Your task to perform on an android device: Go to Reddit.com Image 0: 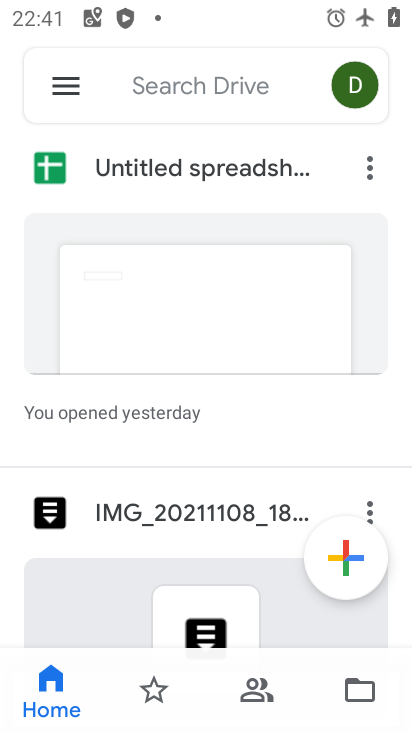
Step 0: press home button
Your task to perform on an android device: Go to Reddit.com Image 1: 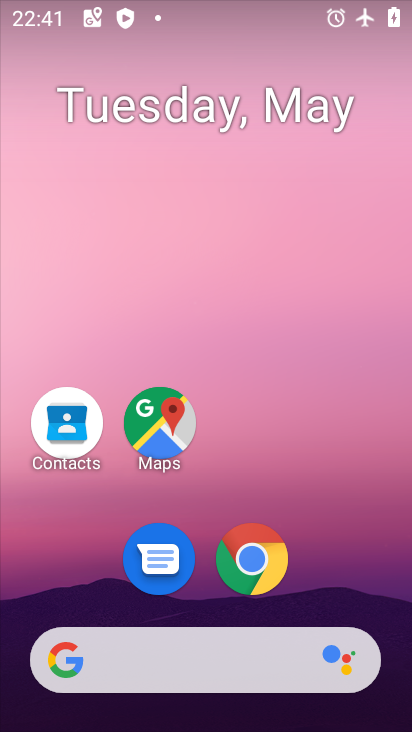
Step 1: click (205, 660)
Your task to perform on an android device: Go to Reddit.com Image 2: 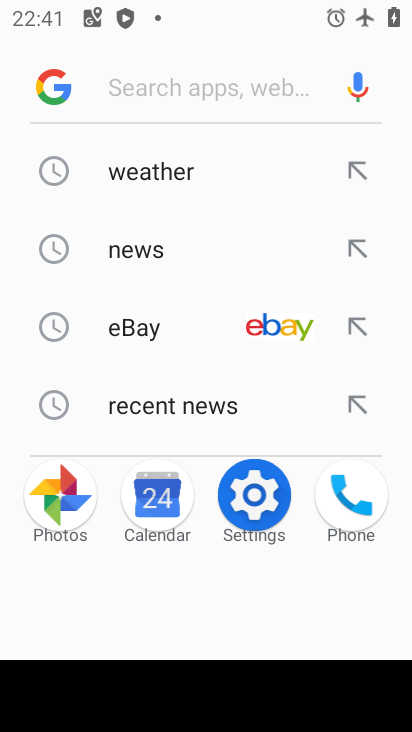
Step 2: click (232, 82)
Your task to perform on an android device: Go to Reddit.com Image 3: 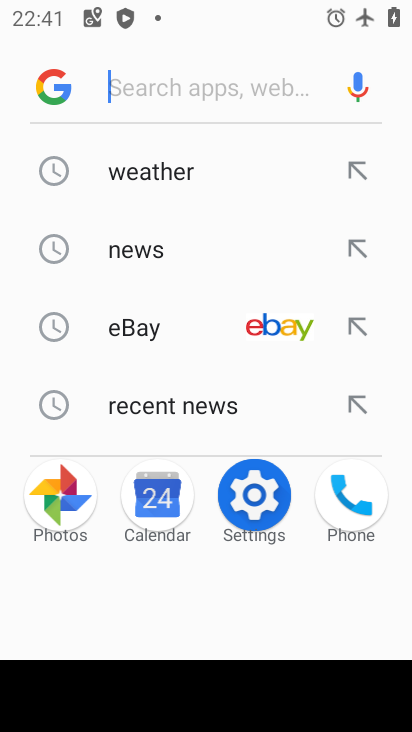
Step 3: type "reddit.com"
Your task to perform on an android device: Go to Reddit.com Image 4: 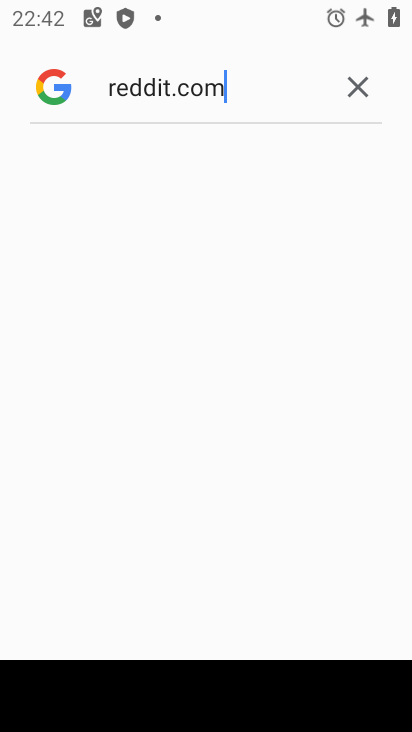
Step 4: task complete